Your task to perform on an android device: turn off sleep mode Image 0: 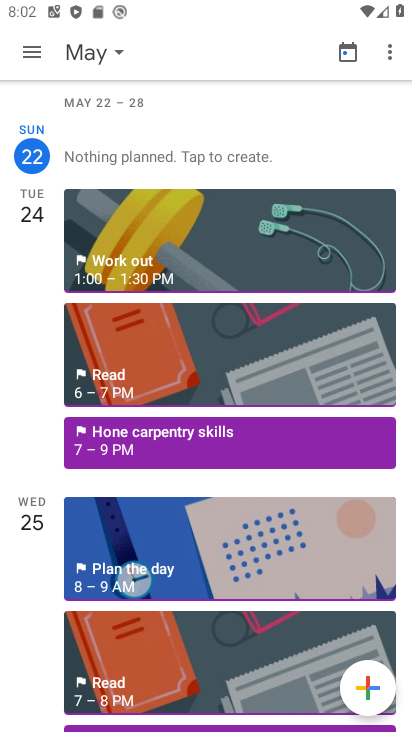
Step 0: press home button
Your task to perform on an android device: turn off sleep mode Image 1: 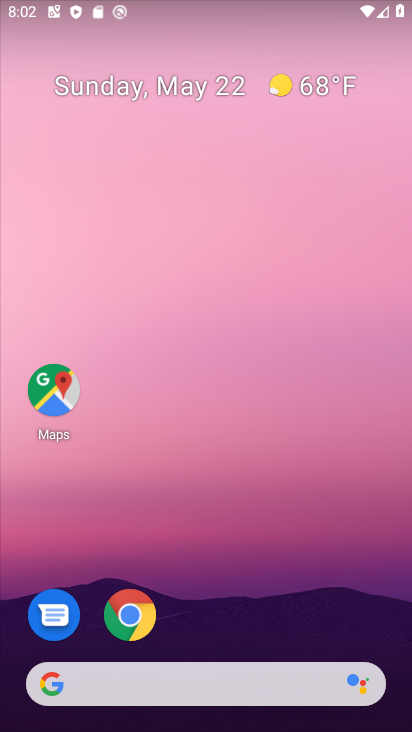
Step 1: drag from (197, 647) to (171, 145)
Your task to perform on an android device: turn off sleep mode Image 2: 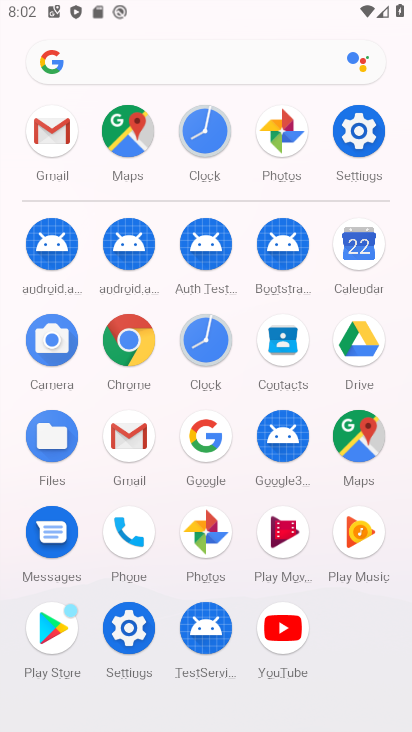
Step 2: click (374, 144)
Your task to perform on an android device: turn off sleep mode Image 3: 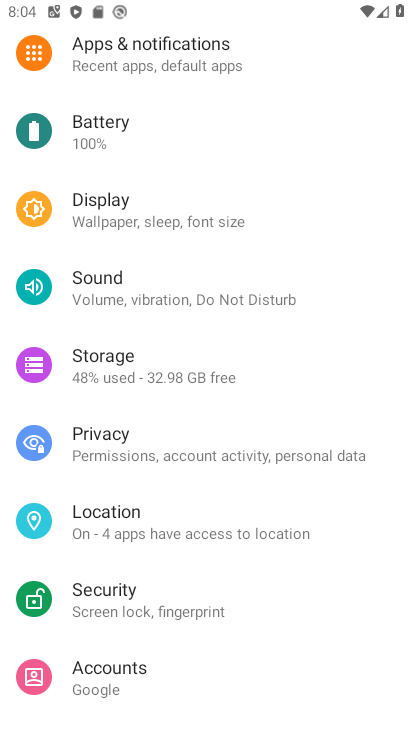
Step 3: task complete